Your task to perform on an android device: delete location history Image 0: 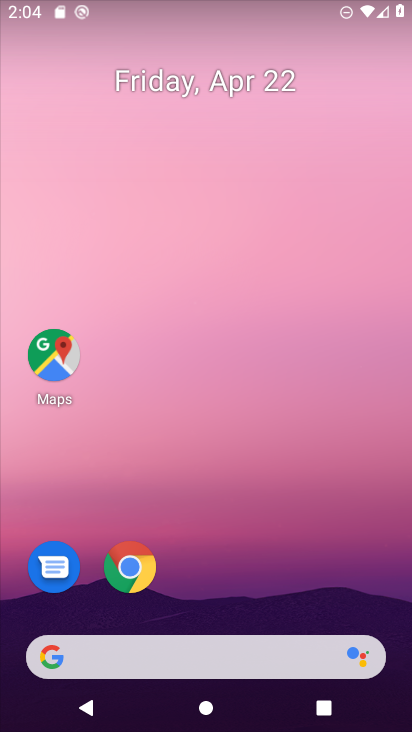
Step 0: drag from (253, 509) to (311, 201)
Your task to perform on an android device: delete location history Image 1: 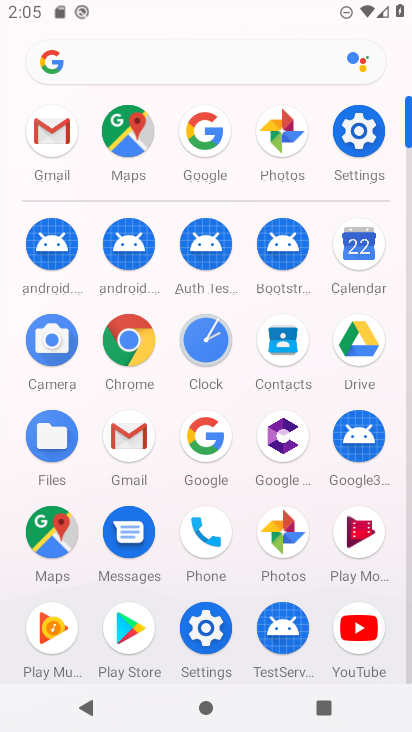
Step 1: click (369, 135)
Your task to perform on an android device: delete location history Image 2: 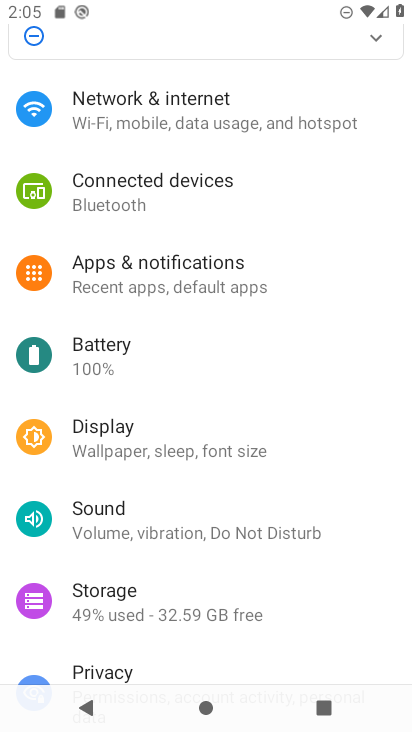
Step 2: drag from (208, 581) to (279, 123)
Your task to perform on an android device: delete location history Image 3: 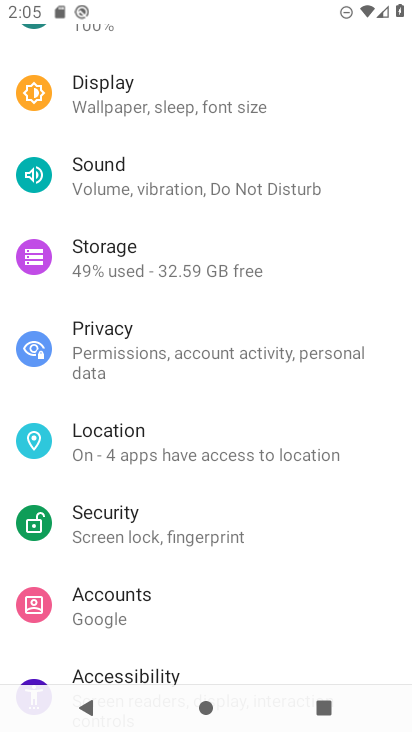
Step 3: click (210, 451)
Your task to perform on an android device: delete location history Image 4: 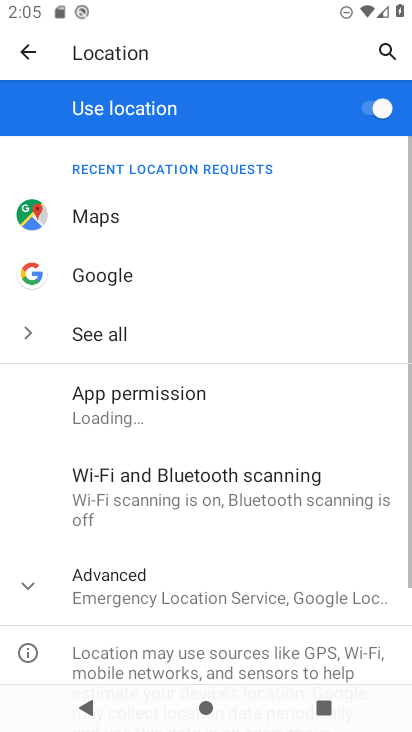
Step 4: drag from (201, 522) to (267, 174)
Your task to perform on an android device: delete location history Image 5: 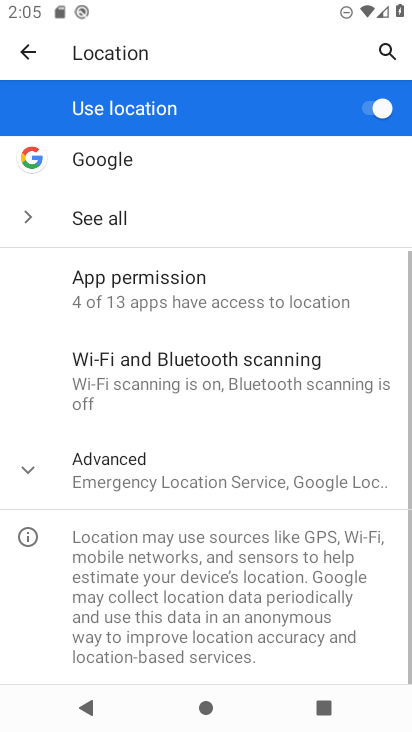
Step 5: click (194, 462)
Your task to perform on an android device: delete location history Image 6: 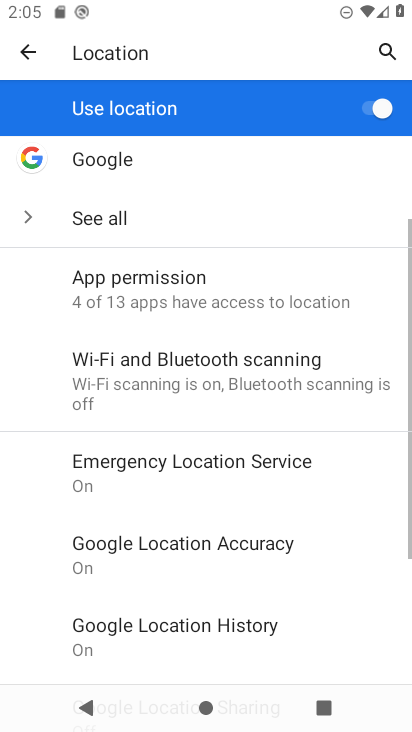
Step 6: drag from (193, 576) to (270, 176)
Your task to perform on an android device: delete location history Image 7: 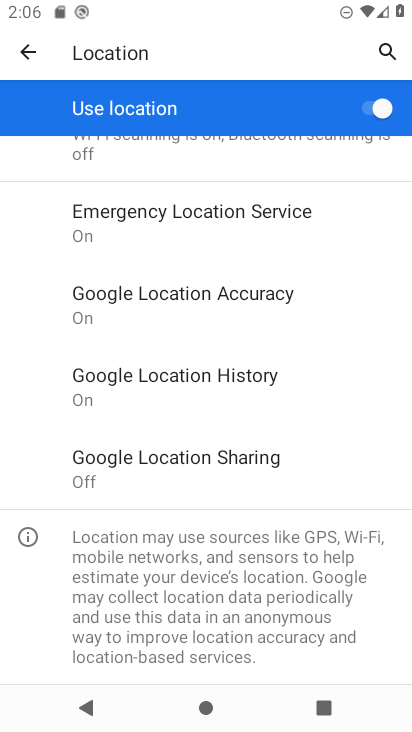
Step 7: click (205, 376)
Your task to perform on an android device: delete location history Image 8: 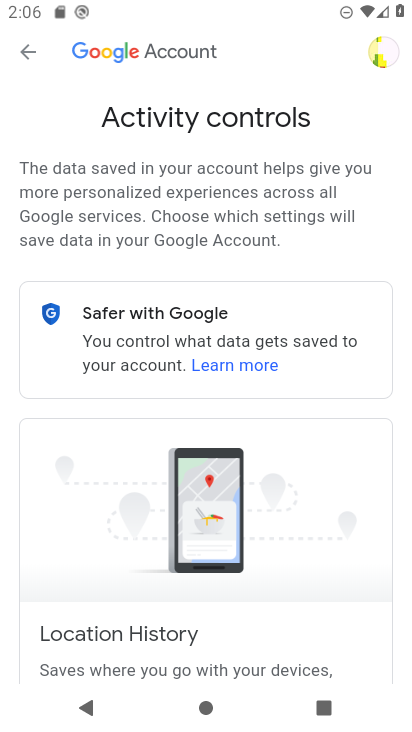
Step 8: drag from (168, 471) to (240, 156)
Your task to perform on an android device: delete location history Image 9: 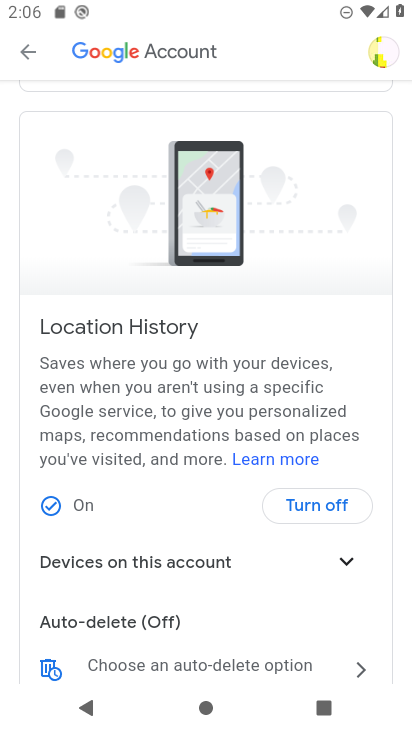
Step 9: click (48, 674)
Your task to perform on an android device: delete location history Image 10: 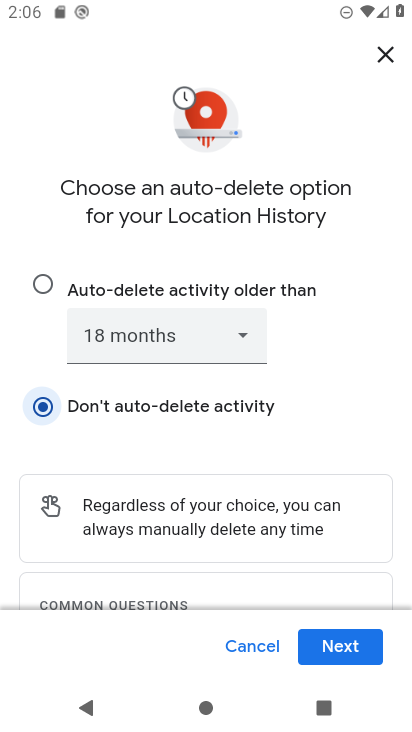
Step 10: click (345, 643)
Your task to perform on an android device: delete location history Image 11: 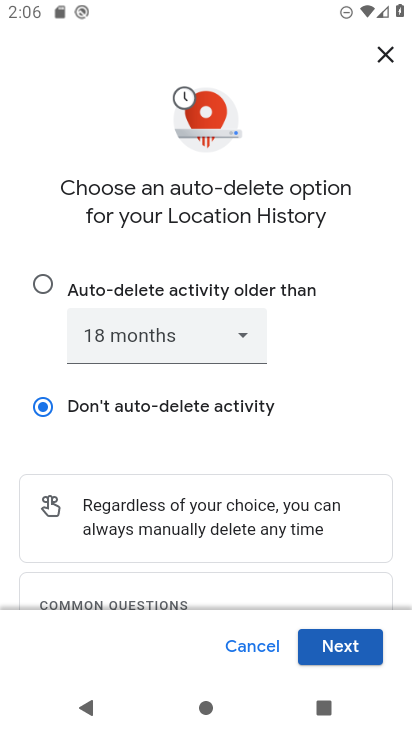
Step 11: click (352, 647)
Your task to perform on an android device: delete location history Image 12: 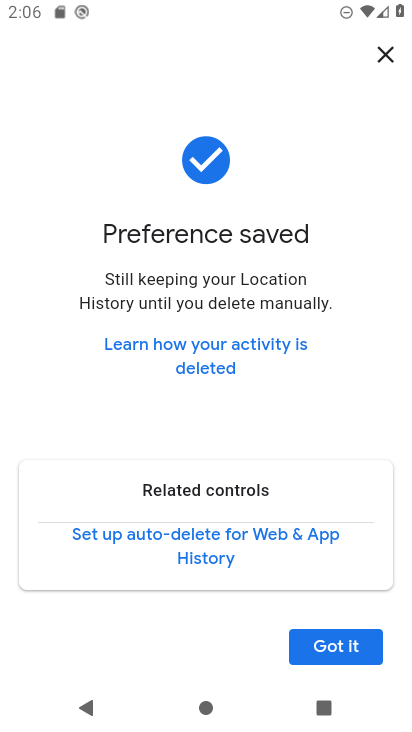
Step 12: click (352, 645)
Your task to perform on an android device: delete location history Image 13: 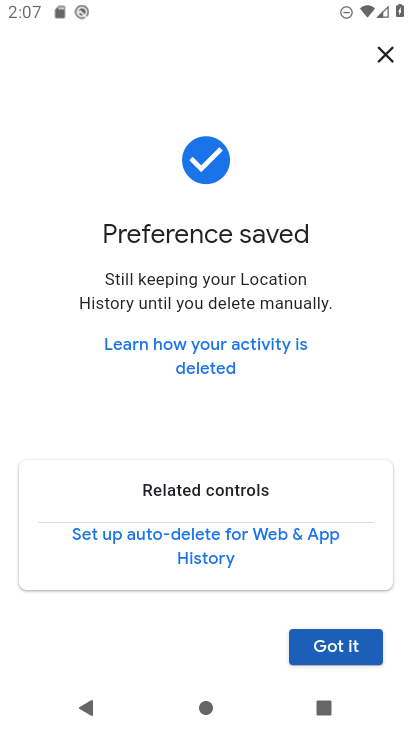
Step 13: click (343, 655)
Your task to perform on an android device: delete location history Image 14: 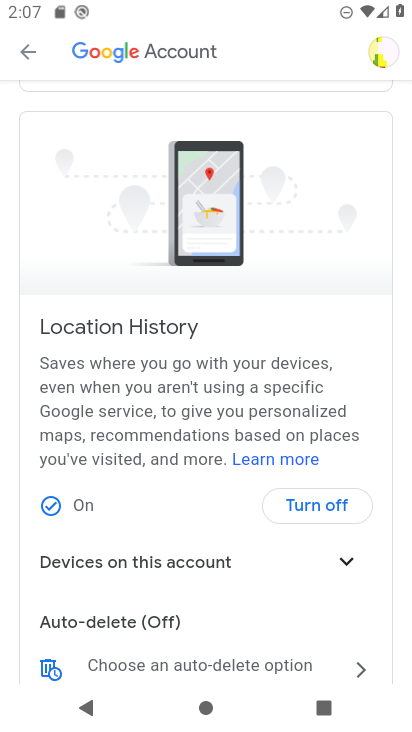
Step 14: task complete